Your task to perform on an android device: Go to Maps Image 0: 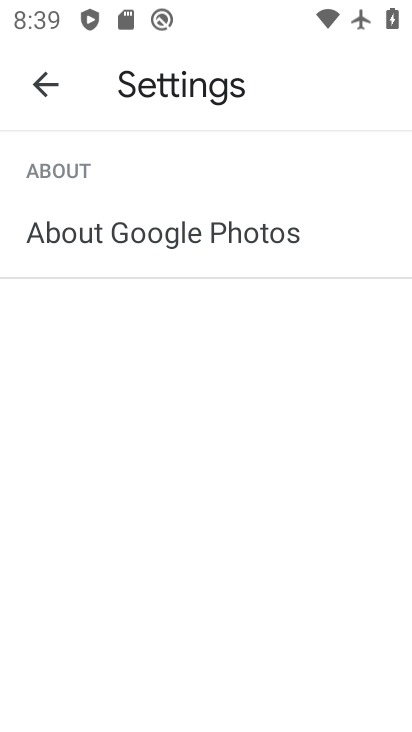
Step 0: press back button
Your task to perform on an android device: Go to Maps Image 1: 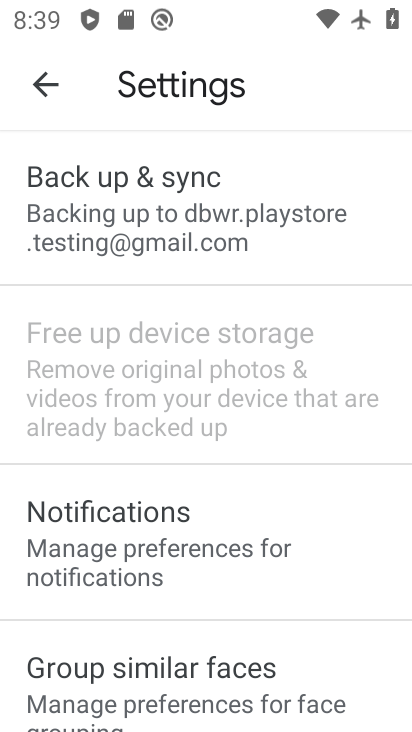
Step 1: press back button
Your task to perform on an android device: Go to Maps Image 2: 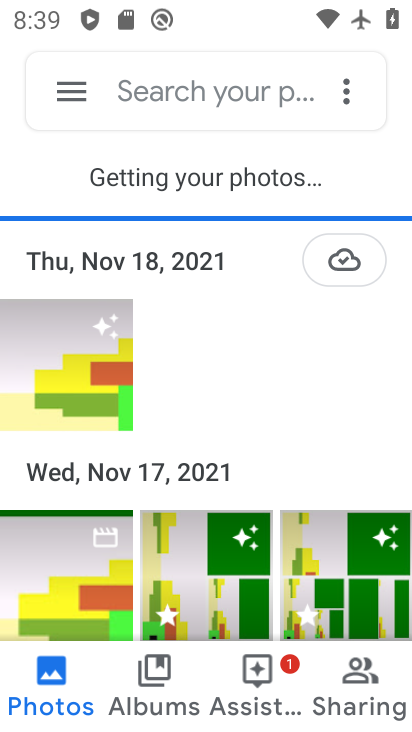
Step 2: press home button
Your task to perform on an android device: Go to Maps Image 3: 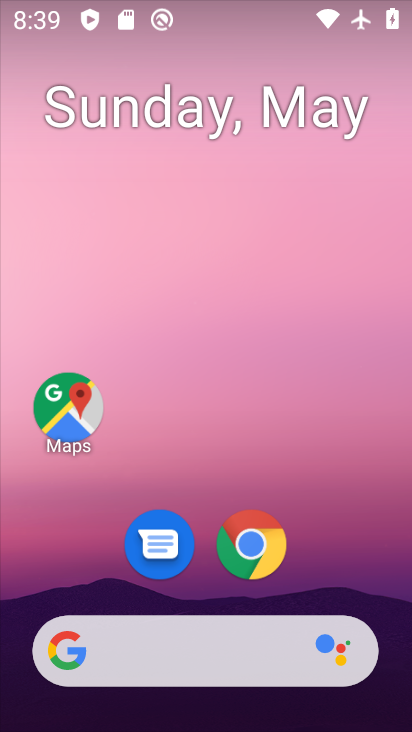
Step 3: drag from (337, 547) to (266, 0)
Your task to perform on an android device: Go to Maps Image 4: 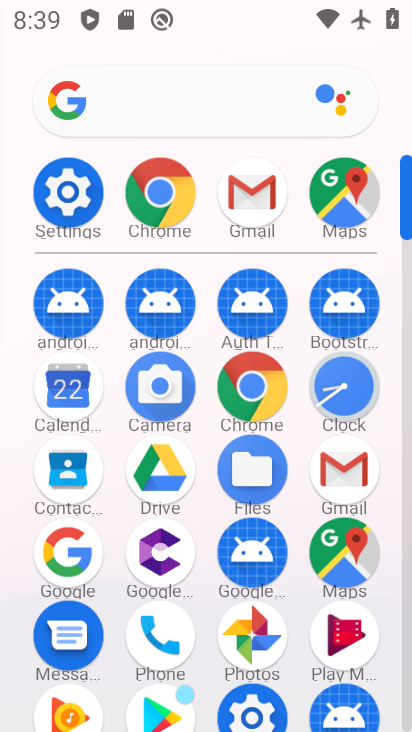
Step 4: click (339, 195)
Your task to perform on an android device: Go to Maps Image 5: 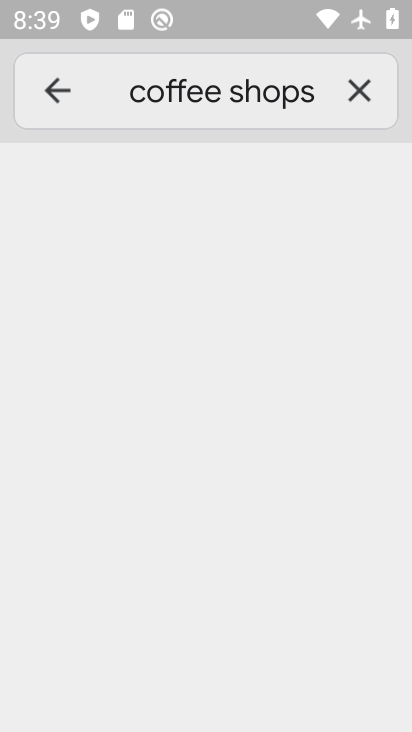
Step 5: click (59, 83)
Your task to perform on an android device: Go to Maps Image 6: 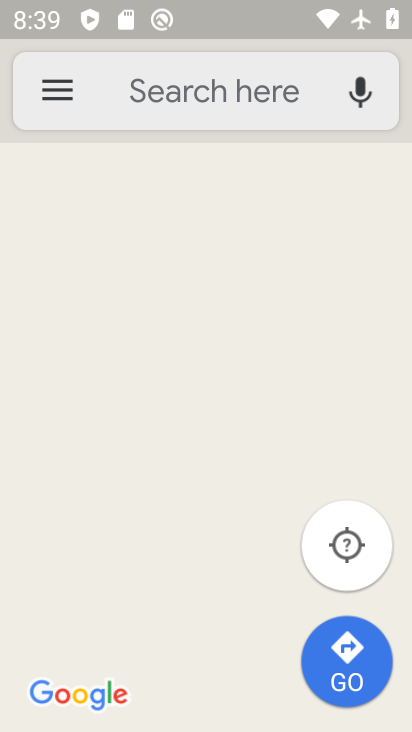
Step 6: drag from (204, 226) to (195, 592)
Your task to perform on an android device: Go to Maps Image 7: 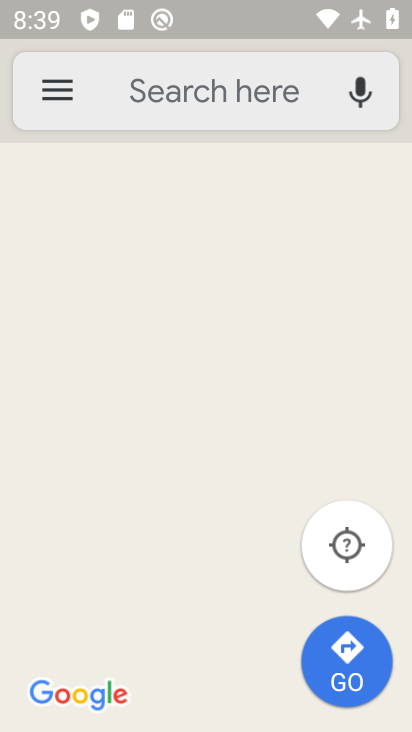
Step 7: click (343, 533)
Your task to perform on an android device: Go to Maps Image 8: 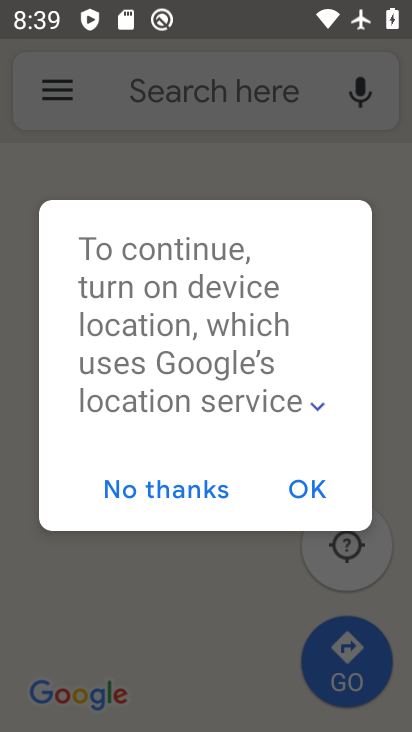
Step 8: click (294, 493)
Your task to perform on an android device: Go to Maps Image 9: 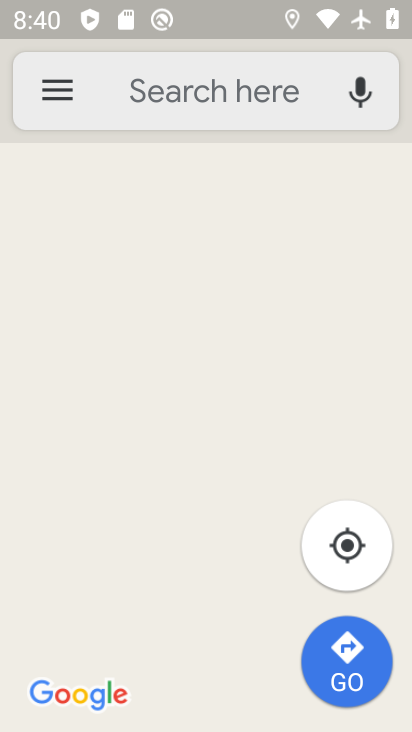
Step 9: task complete